Your task to perform on an android device: open app "Paramount+ | Peak Streaming" (install if not already installed), go to login, and select forgot password Image 0: 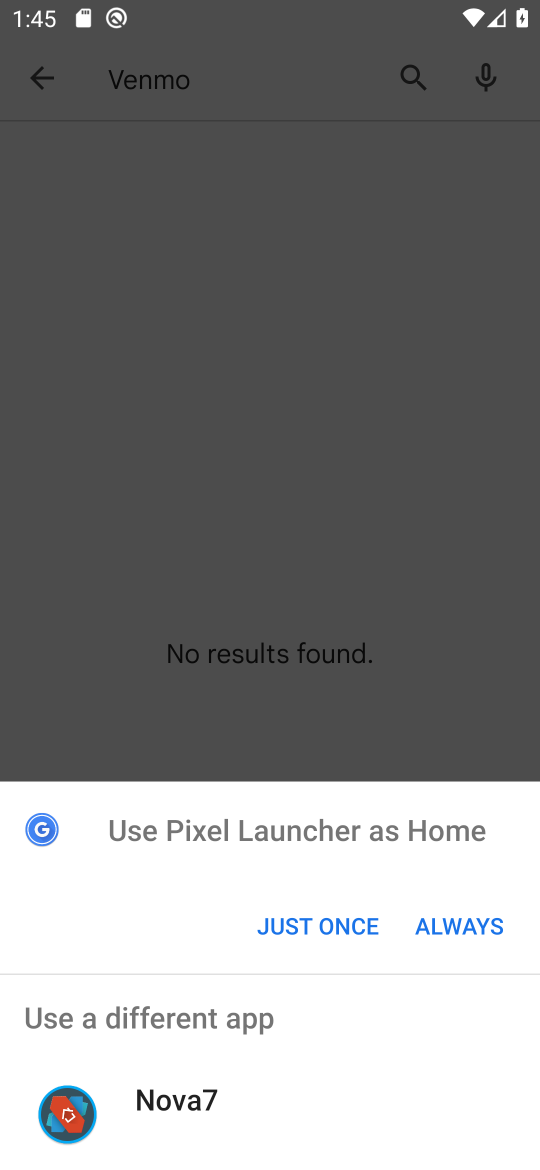
Step 0: click (303, 923)
Your task to perform on an android device: open app "Paramount+ | Peak Streaming" (install if not already installed), go to login, and select forgot password Image 1: 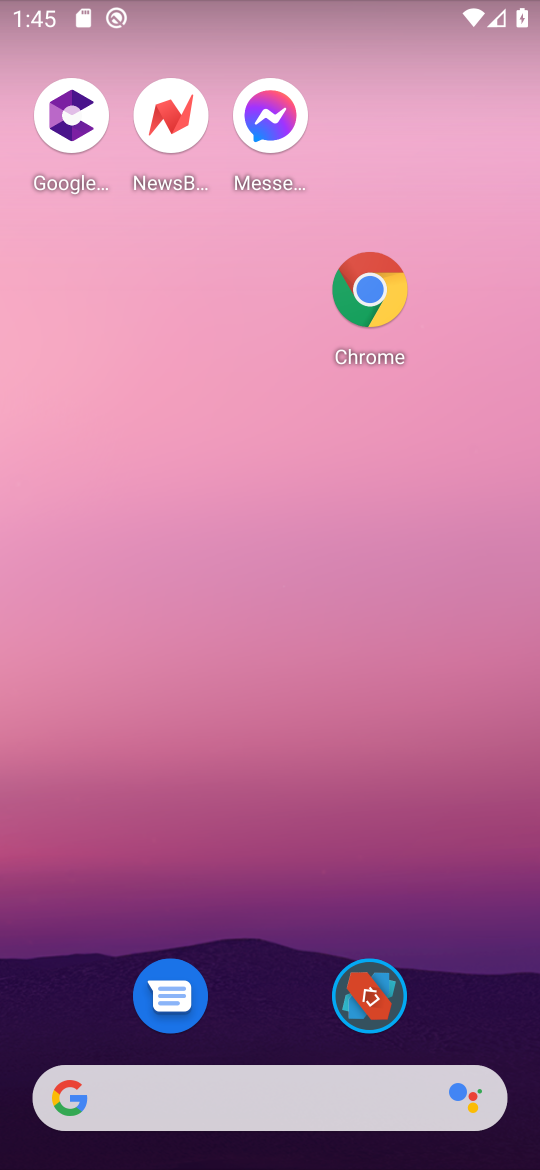
Step 1: drag from (330, 1031) to (384, 345)
Your task to perform on an android device: open app "Paramount+ | Peak Streaming" (install if not already installed), go to login, and select forgot password Image 2: 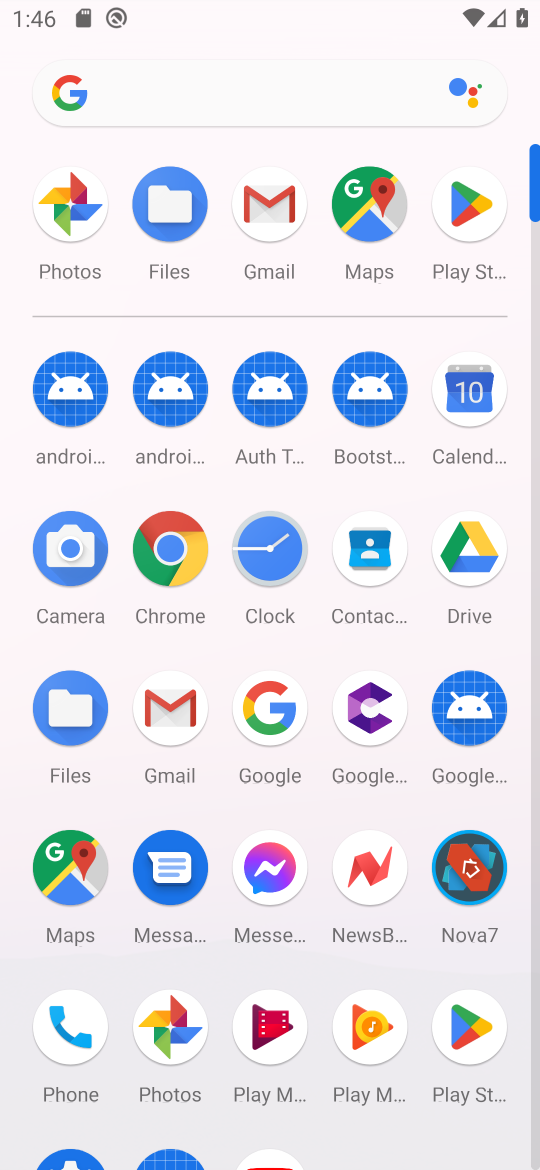
Step 2: click (482, 217)
Your task to perform on an android device: open app "Paramount+ | Peak Streaming" (install if not already installed), go to login, and select forgot password Image 3: 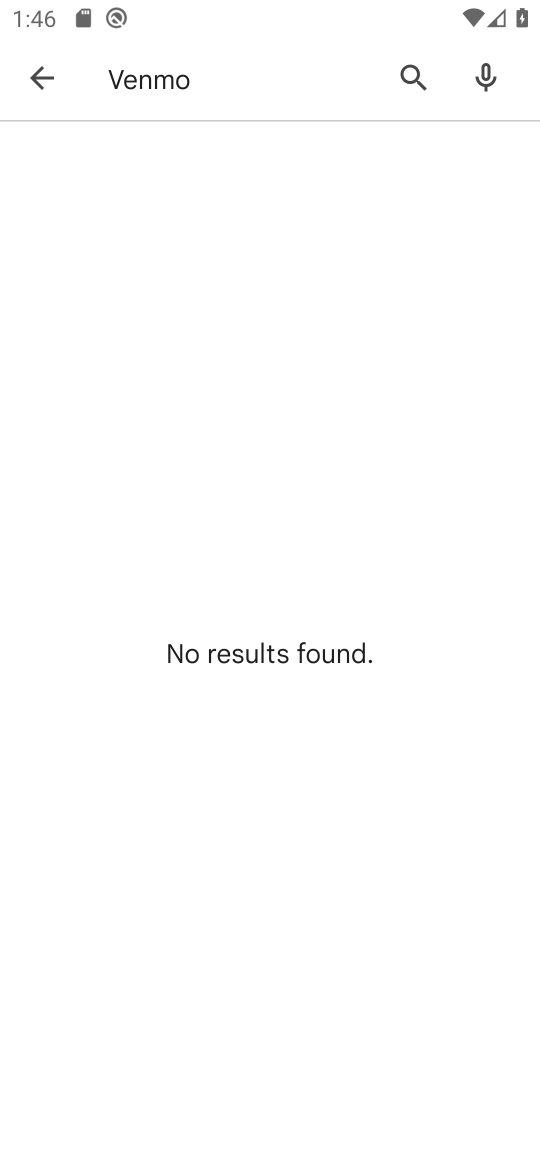
Step 3: press back button
Your task to perform on an android device: open app "Paramount+ | Peak Streaming" (install if not already installed), go to login, and select forgot password Image 4: 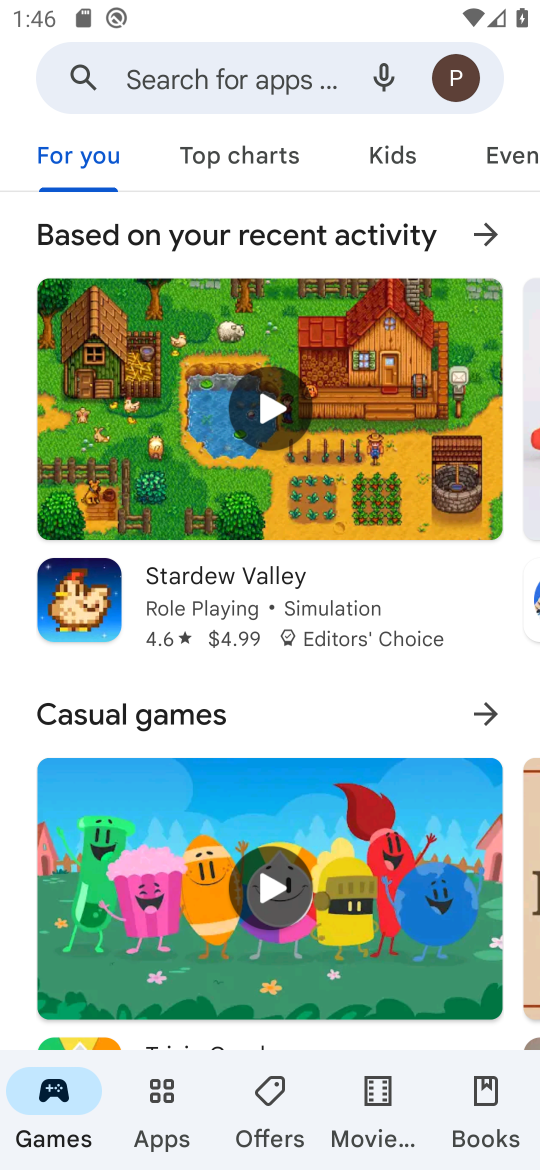
Step 4: click (259, 74)
Your task to perform on an android device: open app "Paramount+ | Peak Streaming" (install if not already installed), go to login, and select forgot password Image 5: 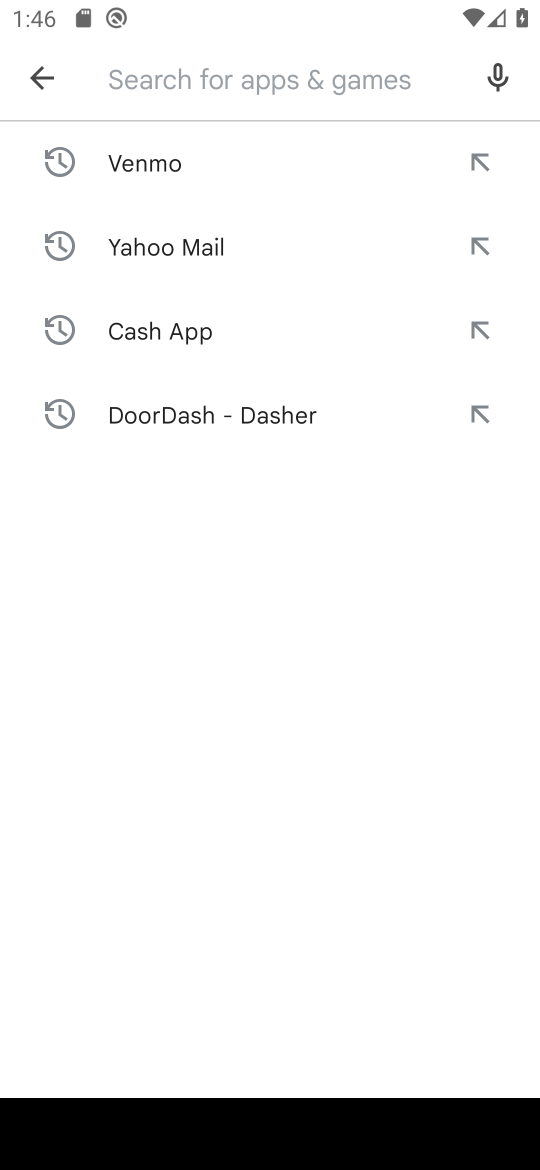
Step 5: type "Paramount+ | Peak Streaming"
Your task to perform on an android device: open app "Paramount+ | Peak Streaming" (install if not already installed), go to login, and select forgot password Image 6: 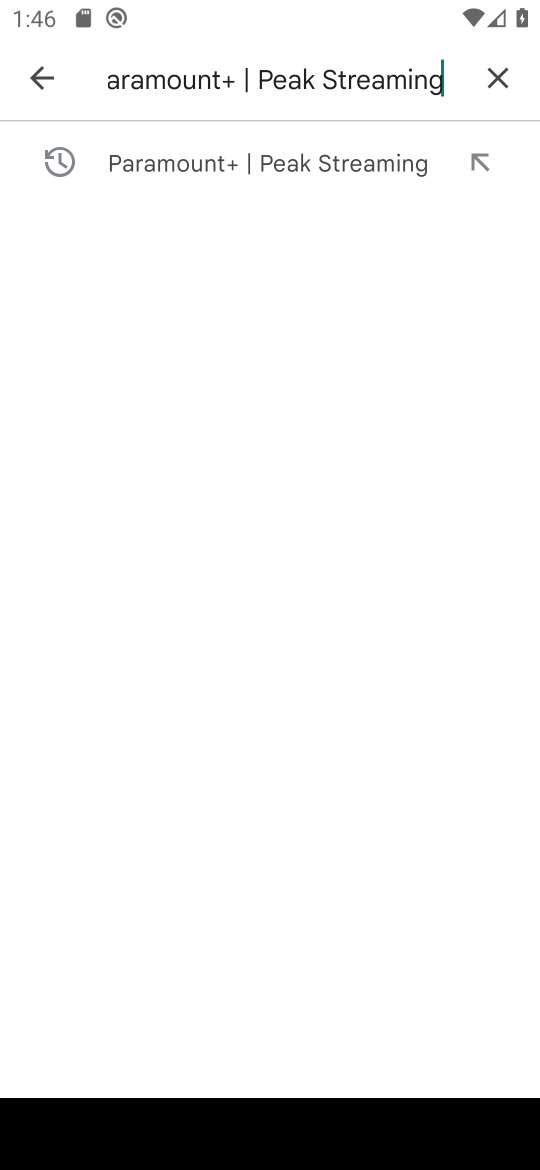
Step 6: press enter
Your task to perform on an android device: open app "Paramount+ | Peak Streaming" (install if not already installed), go to login, and select forgot password Image 7: 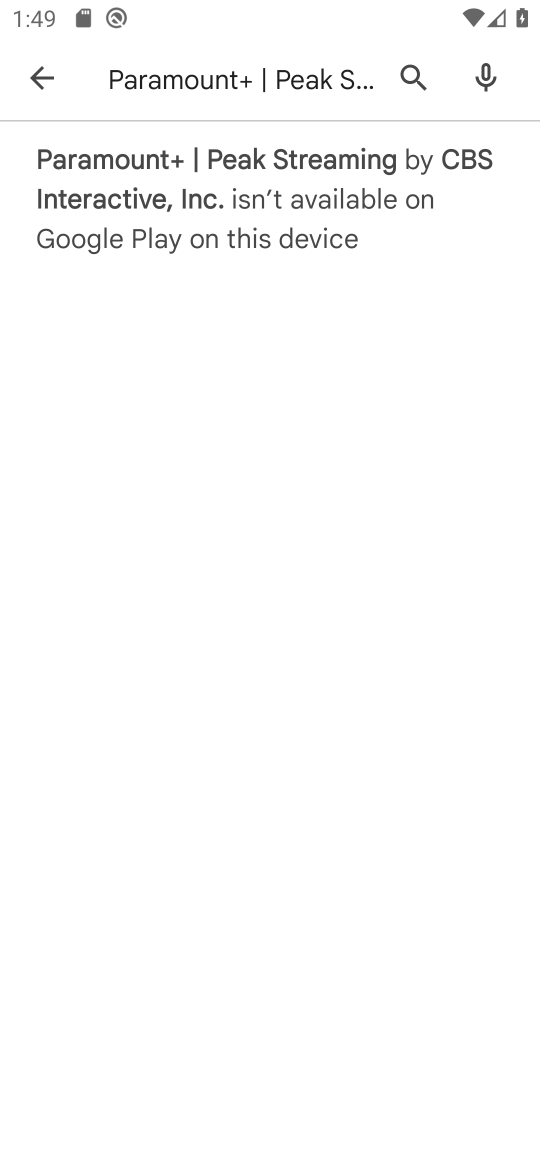
Step 7: task complete